Your task to perform on an android device: open chrome privacy settings Image 0: 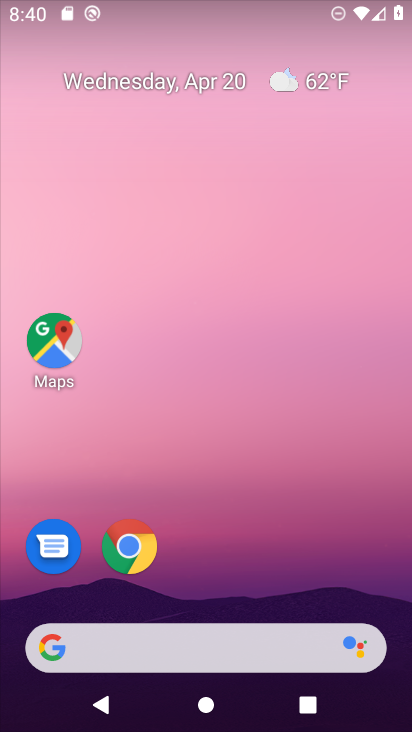
Step 0: click (138, 549)
Your task to perform on an android device: open chrome privacy settings Image 1: 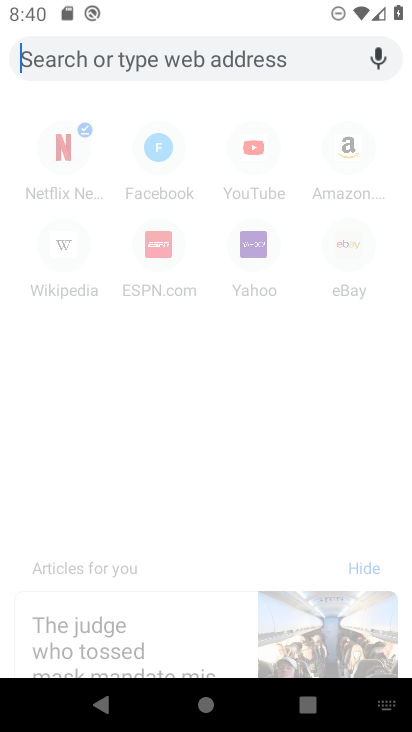
Step 1: press back button
Your task to perform on an android device: open chrome privacy settings Image 2: 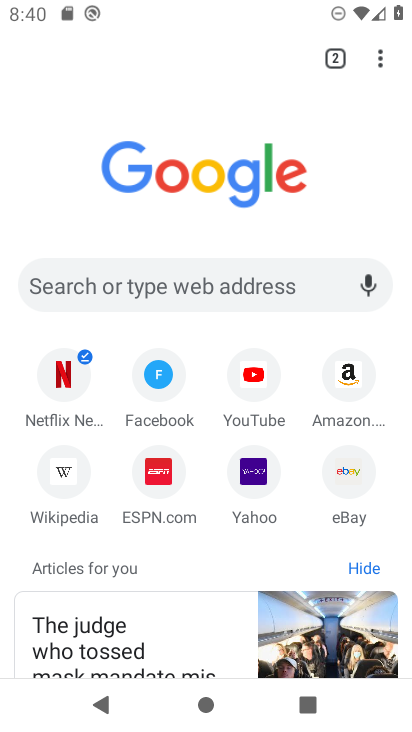
Step 2: click (378, 60)
Your task to perform on an android device: open chrome privacy settings Image 3: 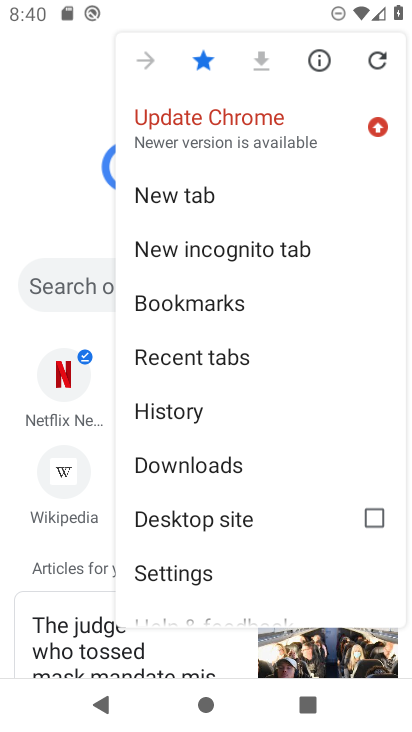
Step 3: click (221, 572)
Your task to perform on an android device: open chrome privacy settings Image 4: 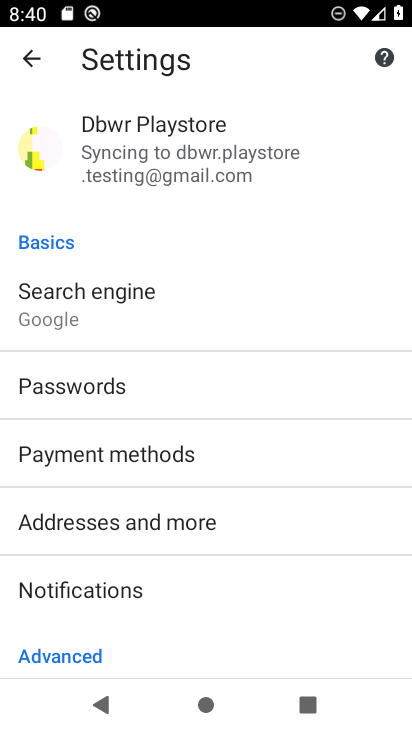
Step 4: drag from (226, 557) to (245, 203)
Your task to perform on an android device: open chrome privacy settings Image 5: 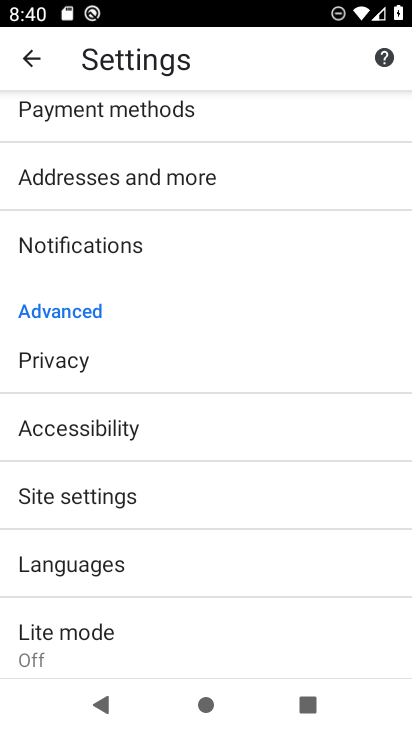
Step 5: click (135, 372)
Your task to perform on an android device: open chrome privacy settings Image 6: 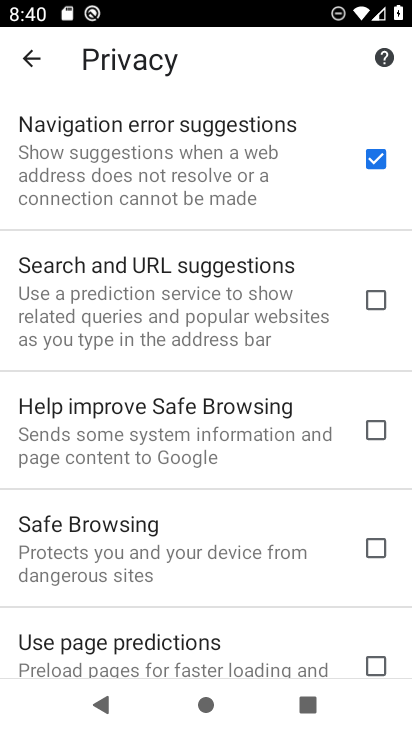
Step 6: task complete